Your task to perform on an android device: Go to Android settings Image 0: 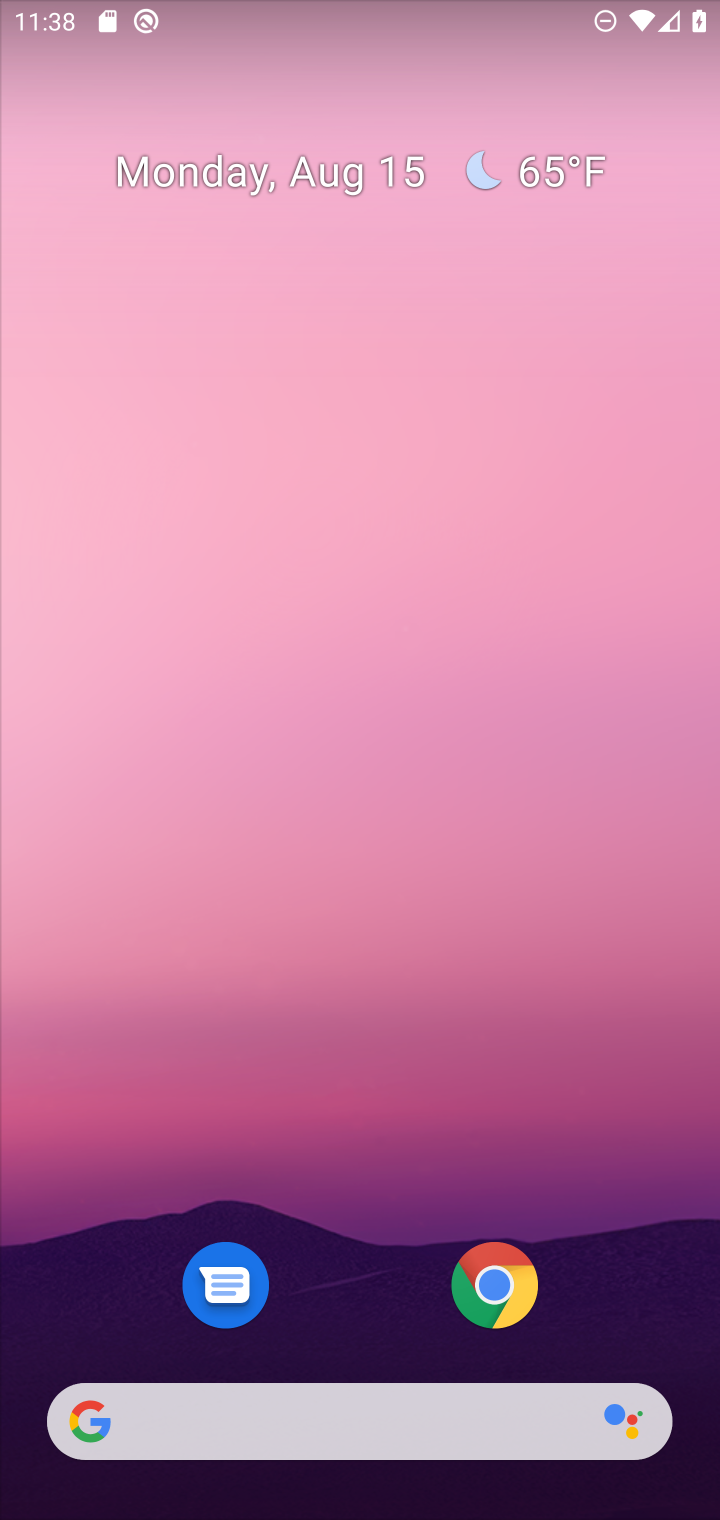
Step 0: press home button
Your task to perform on an android device: Go to Android settings Image 1: 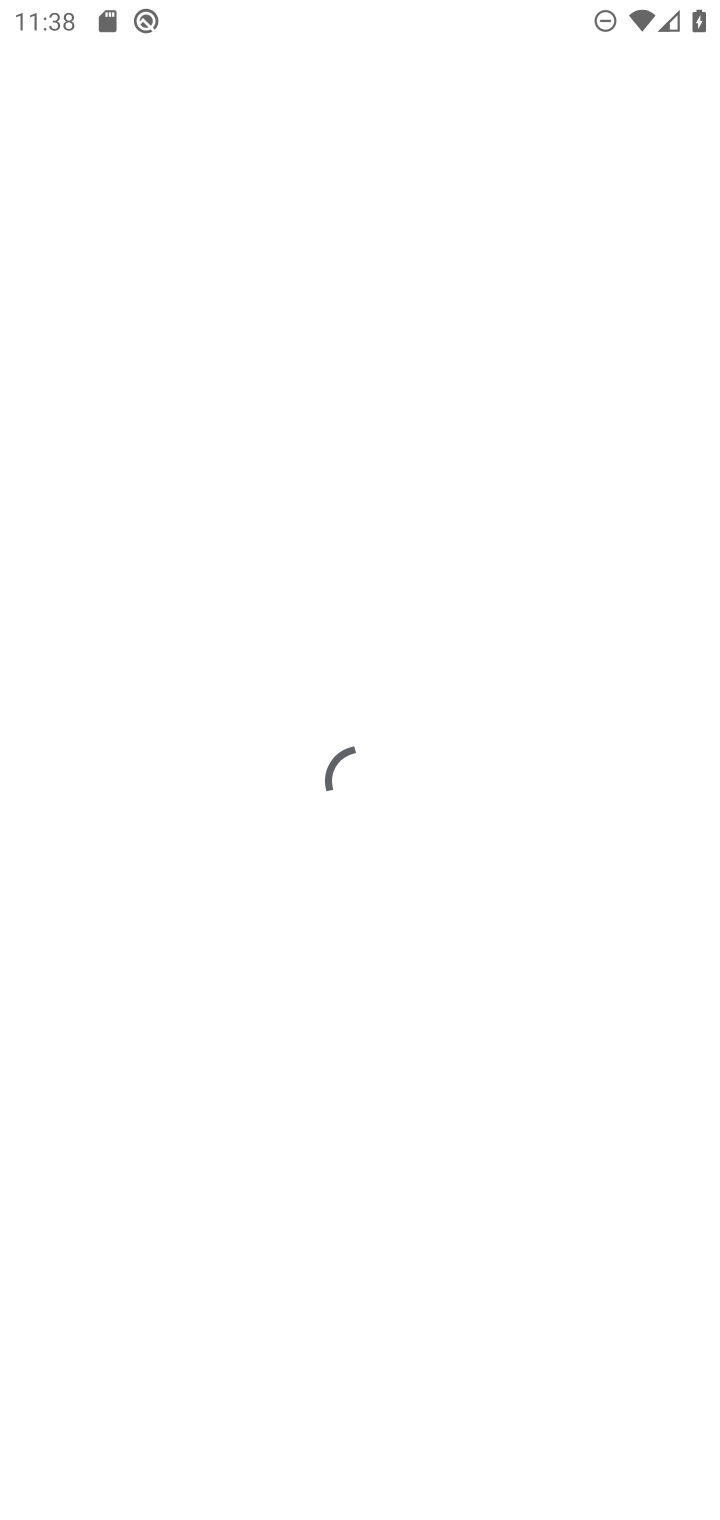
Step 1: drag from (358, 1328) to (385, 294)
Your task to perform on an android device: Go to Android settings Image 2: 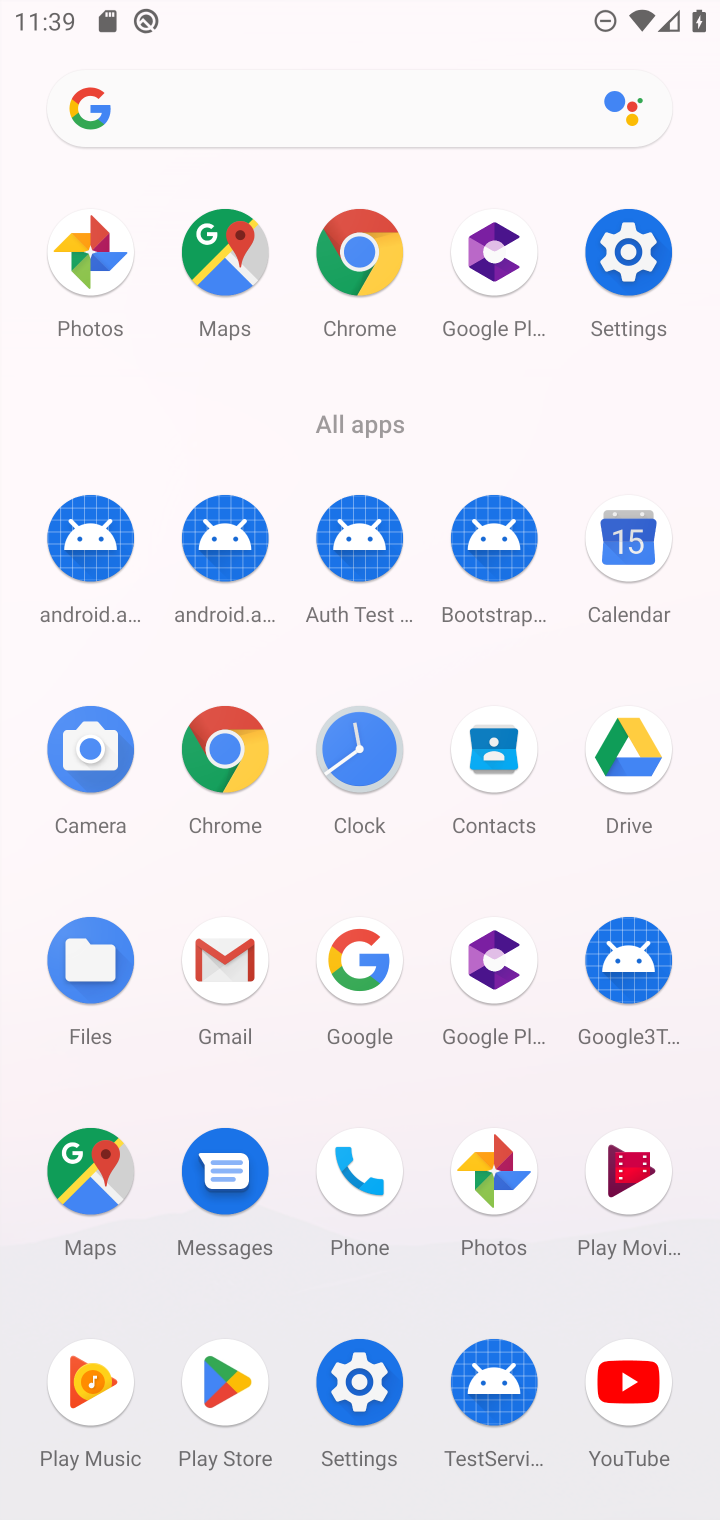
Step 2: click (396, 1362)
Your task to perform on an android device: Go to Android settings Image 3: 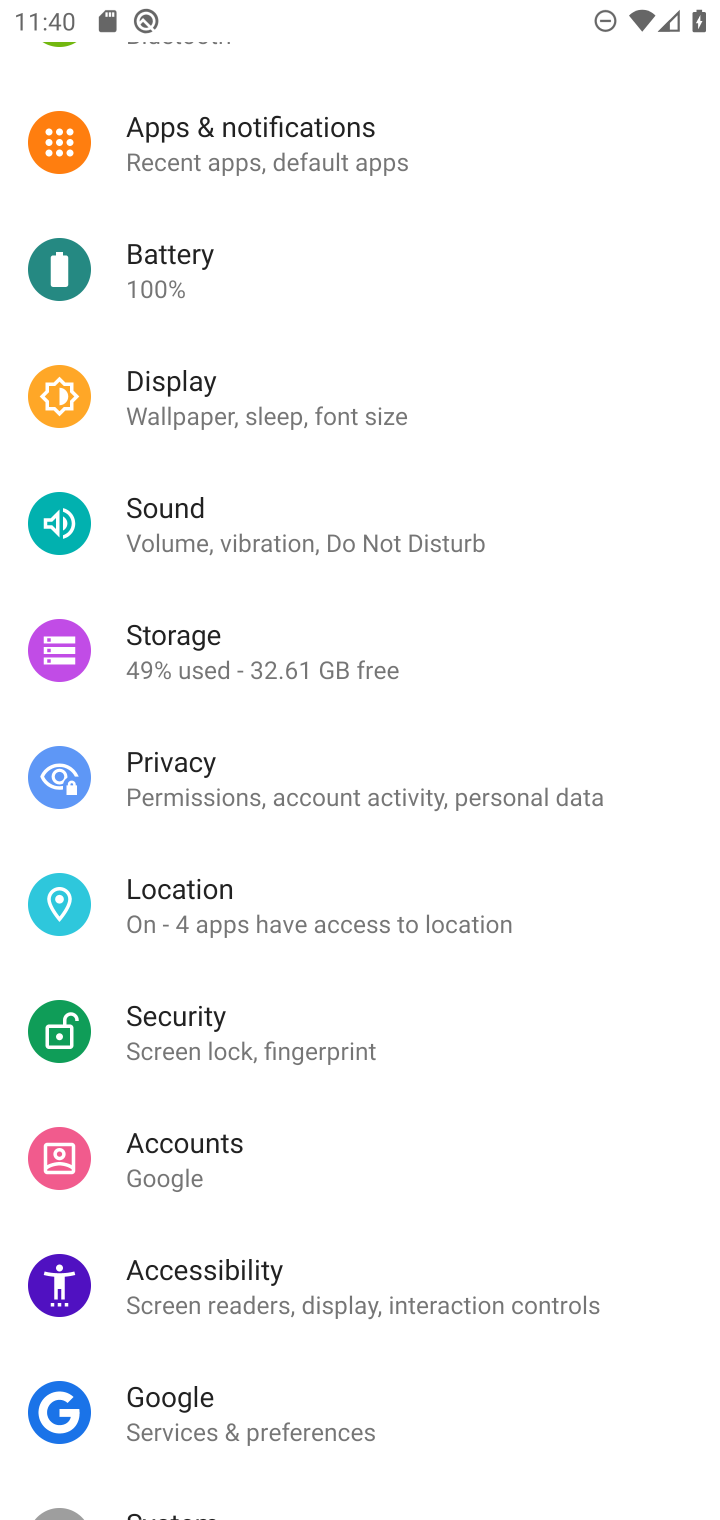
Step 3: drag from (355, 1253) to (491, 318)
Your task to perform on an android device: Go to Android settings Image 4: 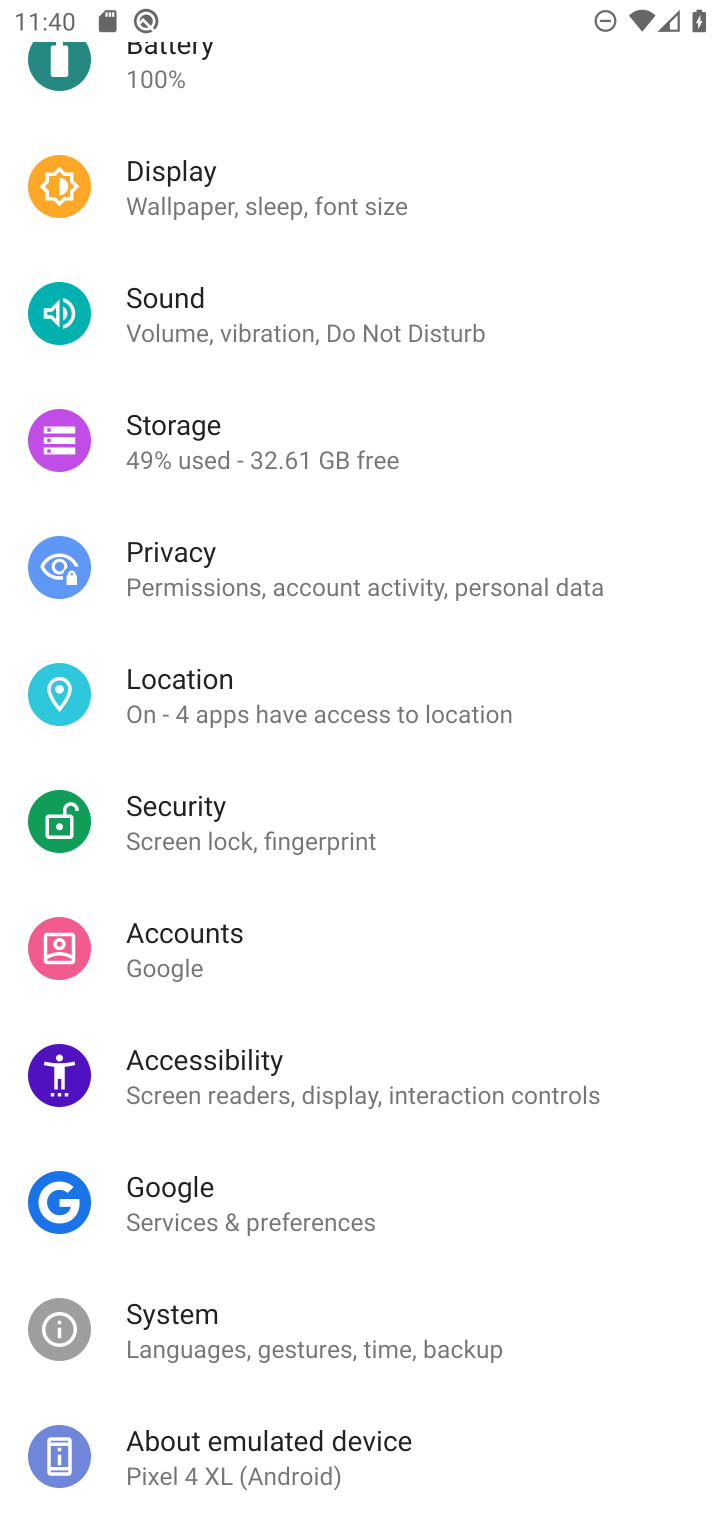
Step 4: drag from (305, 1216) to (374, 627)
Your task to perform on an android device: Go to Android settings Image 5: 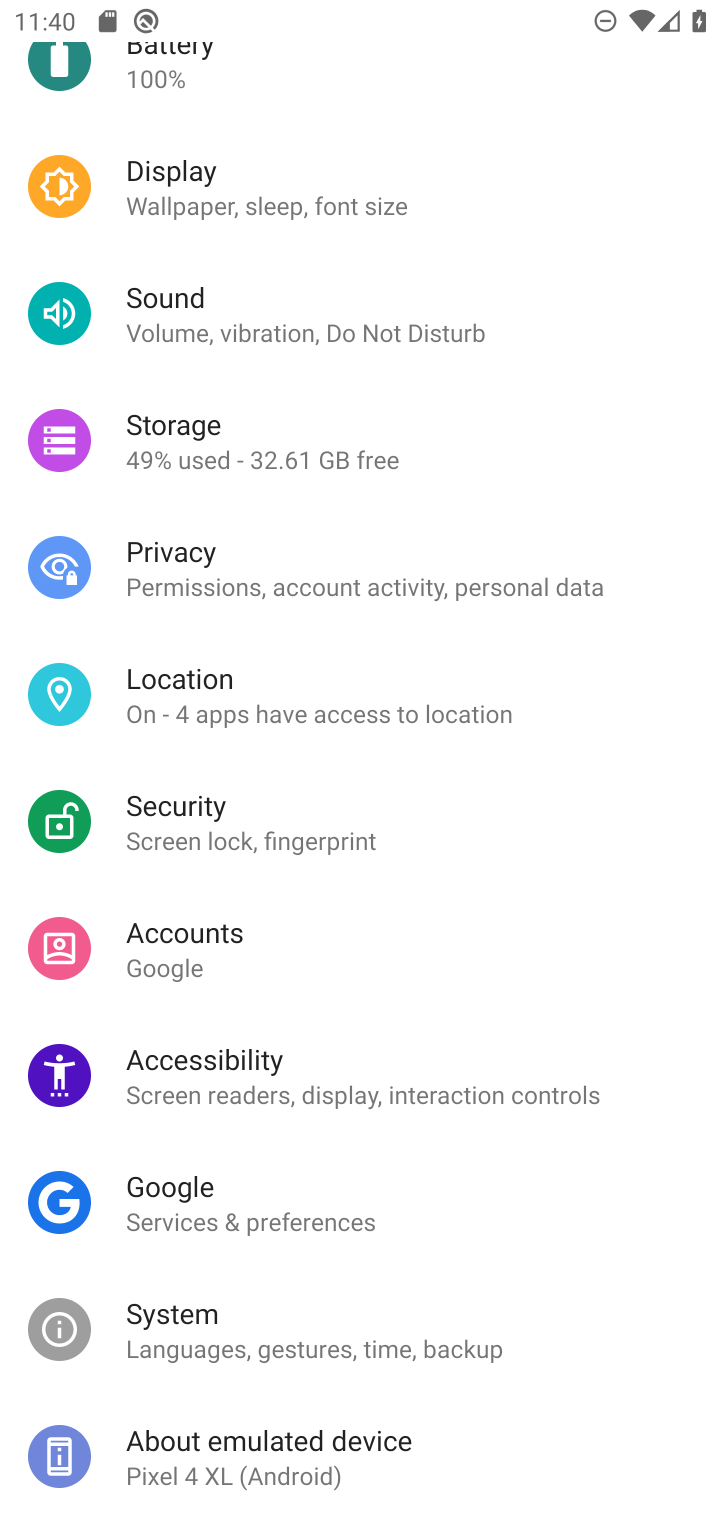
Step 5: click (370, 1450)
Your task to perform on an android device: Go to Android settings Image 6: 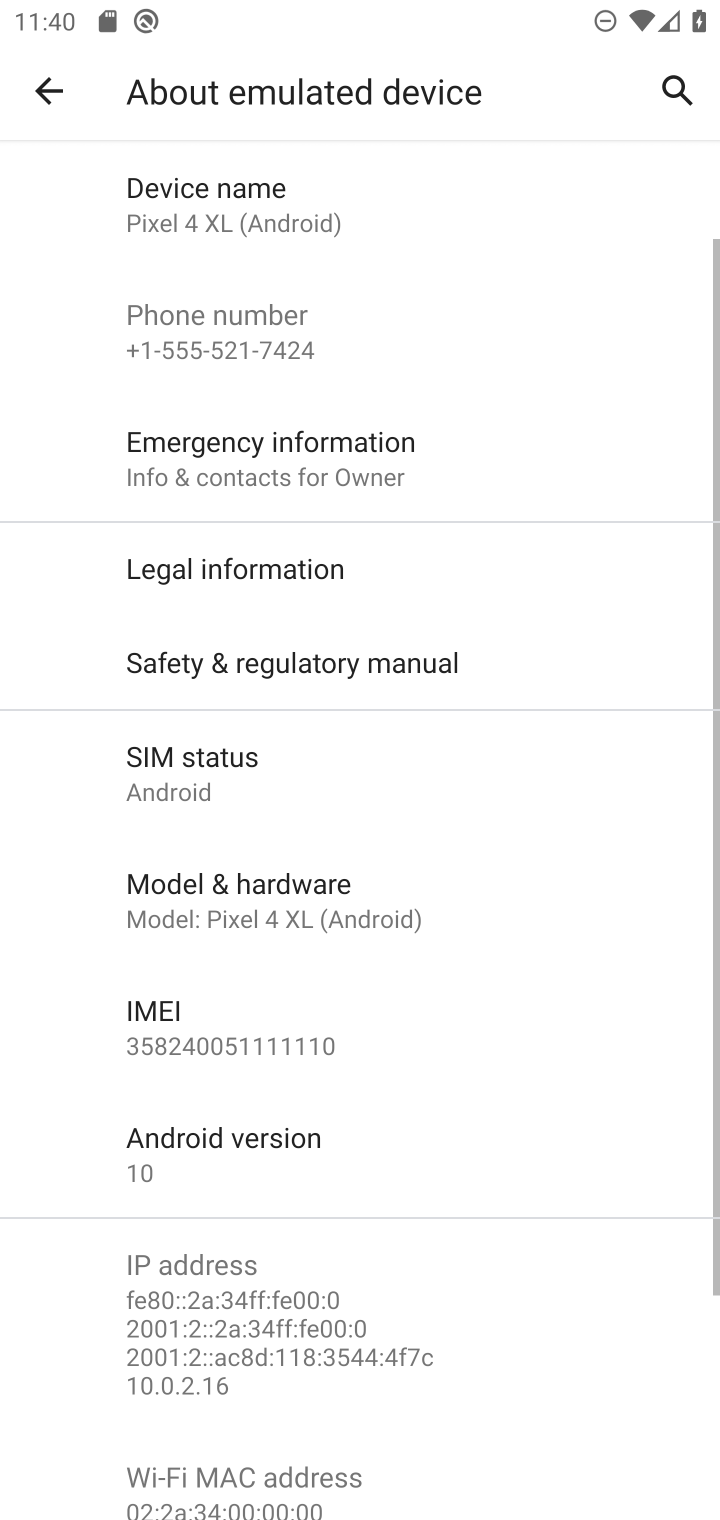
Step 6: click (251, 1150)
Your task to perform on an android device: Go to Android settings Image 7: 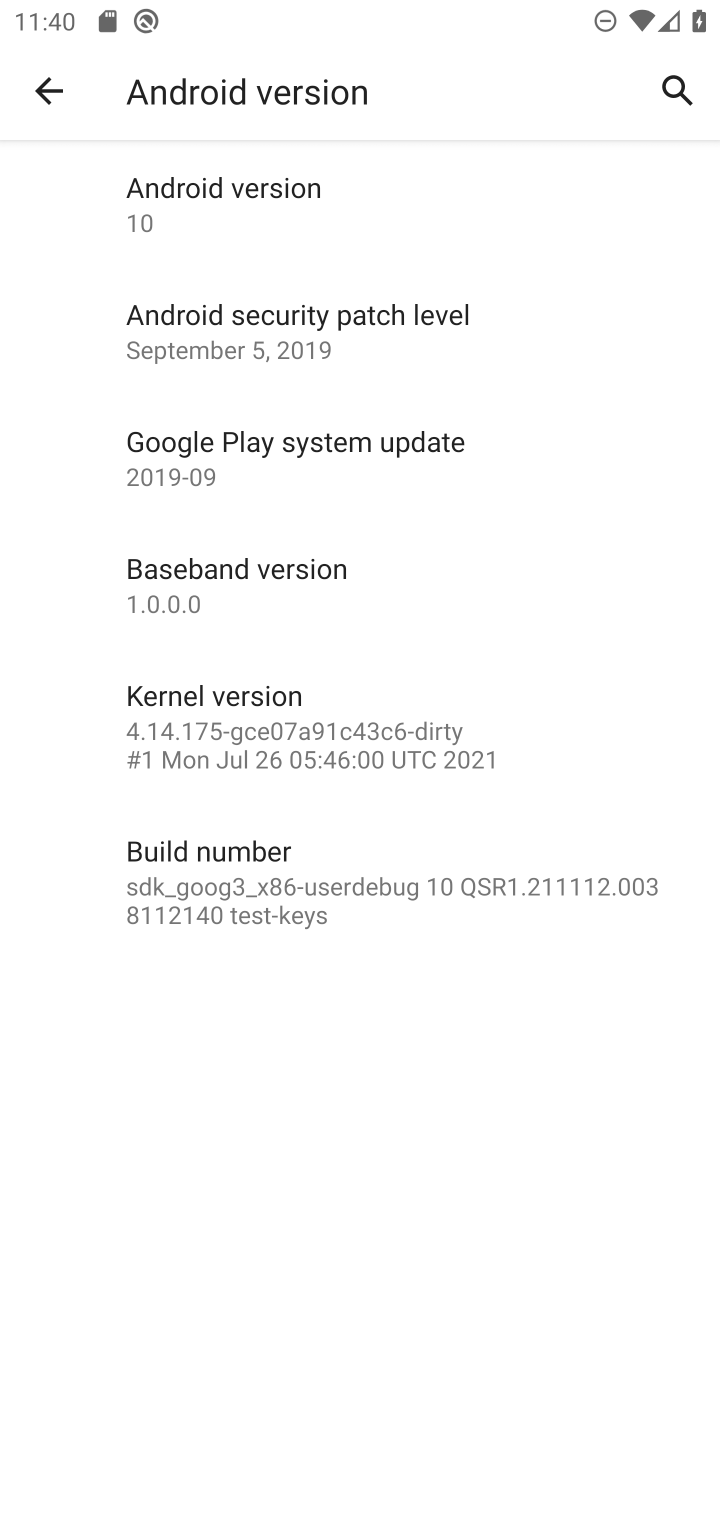
Step 7: task complete